Your task to perform on an android device: Open the web browser Image 0: 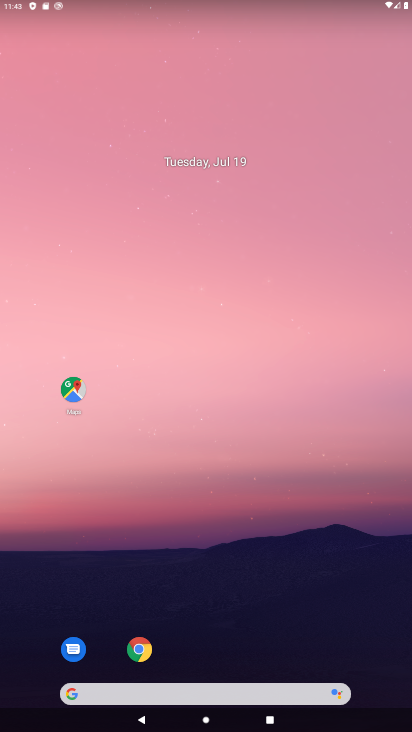
Step 0: drag from (171, 600) to (233, 108)
Your task to perform on an android device: Open the web browser Image 1: 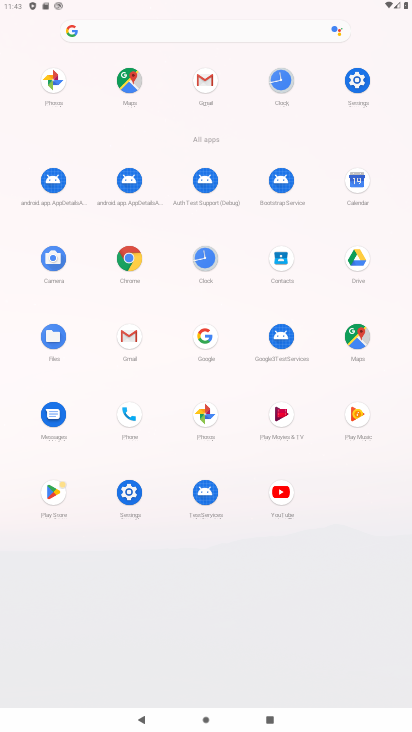
Step 1: click (126, 259)
Your task to perform on an android device: Open the web browser Image 2: 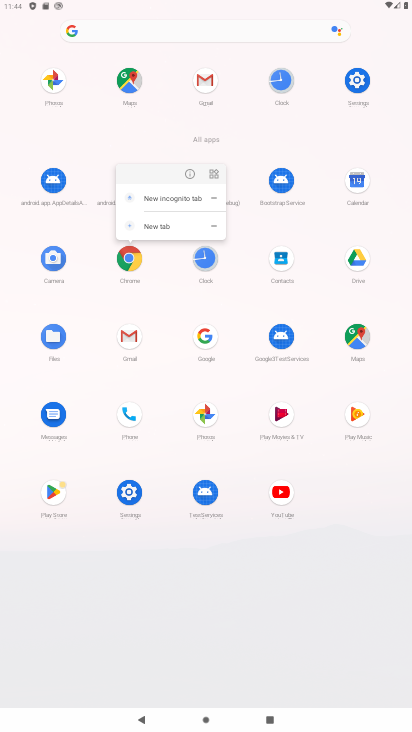
Step 2: click (188, 173)
Your task to perform on an android device: Open the web browser Image 3: 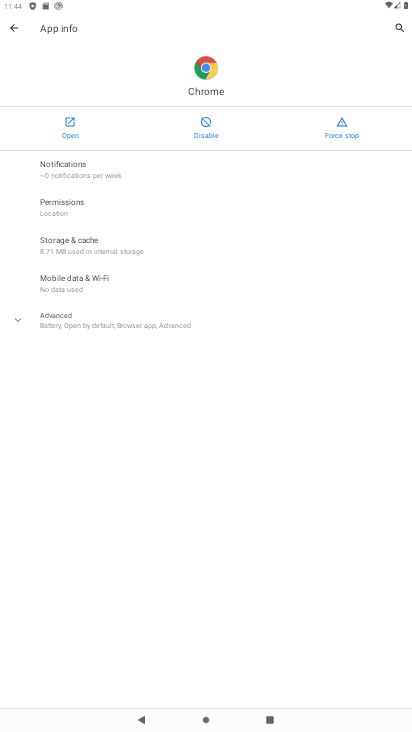
Step 3: click (70, 122)
Your task to perform on an android device: Open the web browser Image 4: 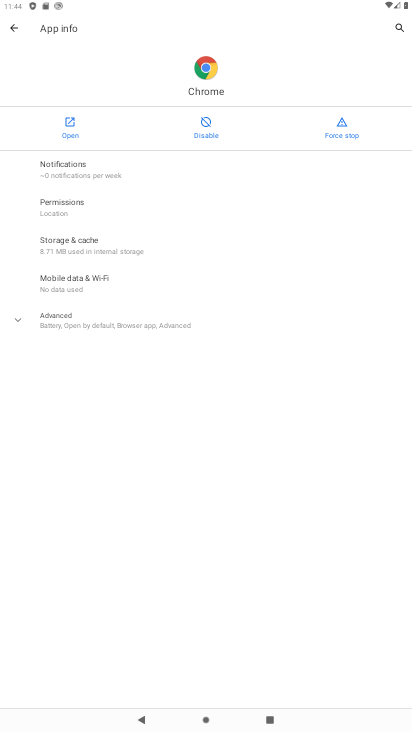
Step 4: click (70, 121)
Your task to perform on an android device: Open the web browser Image 5: 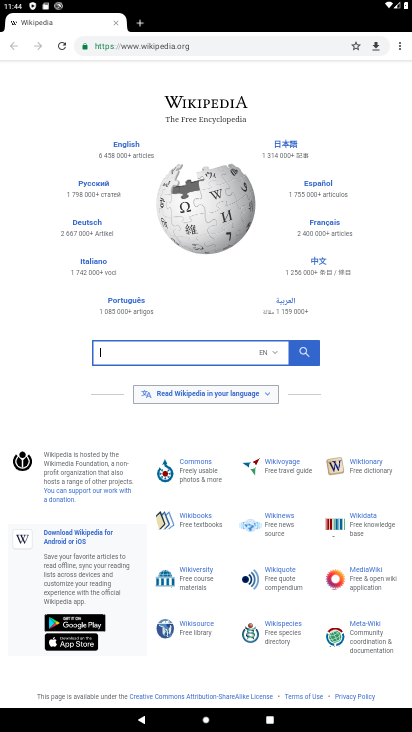
Step 5: task complete